Your task to perform on an android device: What's the weather going to be this weekend? Image 0: 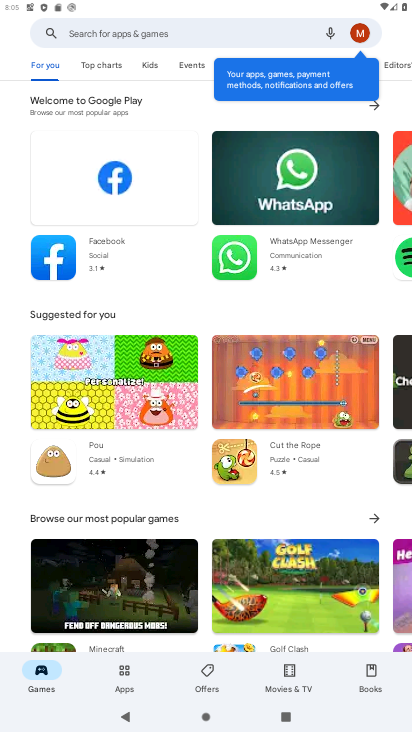
Step 0: press home button
Your task to perform on an android device: What's the weather going to be this weekend? Image 1: 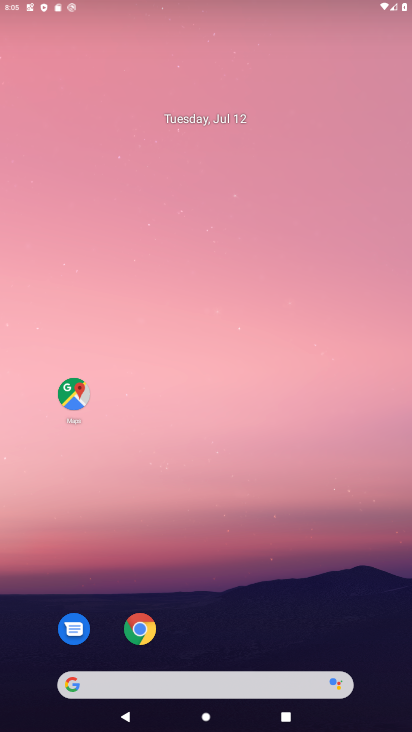
Step 1: drag from (216, 579) to (222, 165)
Your task to perform on an android device: What's the weather going to be this weekend? Image 2: 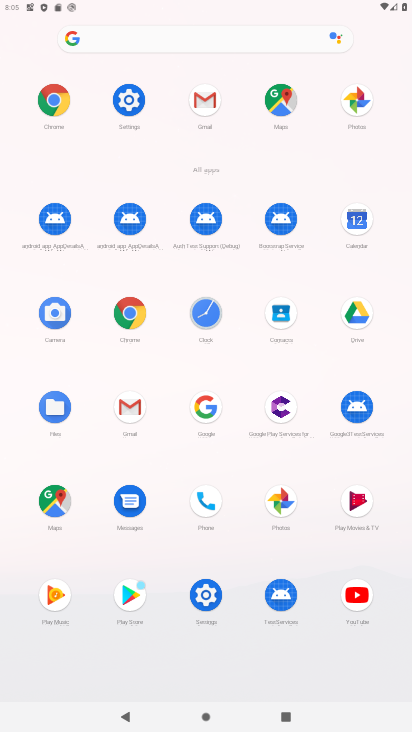
Step 2: click (50, 100)
Your task to perform on an android device: What's the weather going to be this weekend? Image 3: 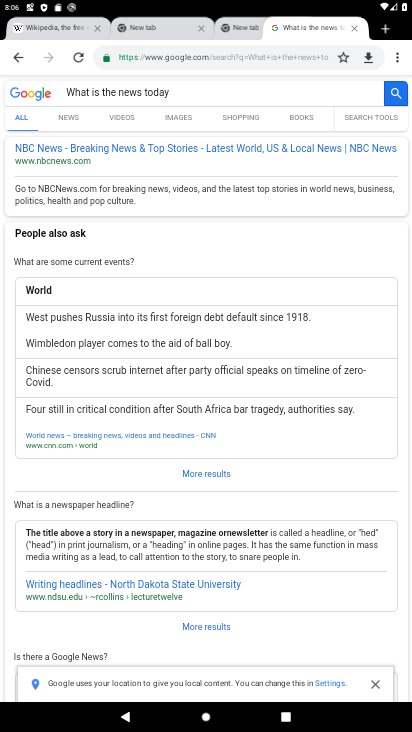
Step 3: click (404, 58)
Your task to perform on an android device: What's the weather going to be this weekend? Image 4: 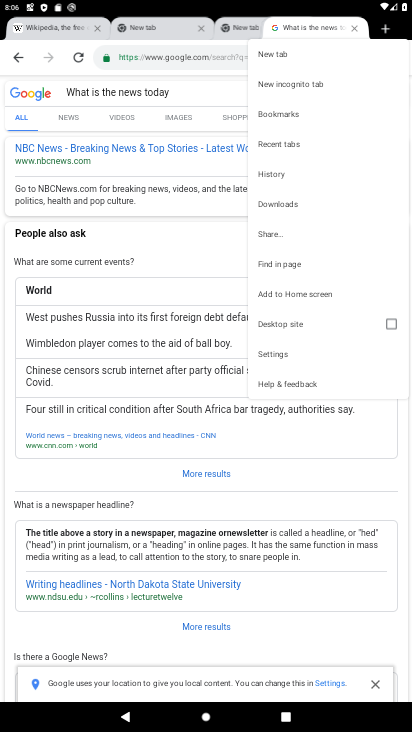
Step 4: click (275, 57)
Your task to perform on an android device: What's the weather going to be this weekend? Image 5: 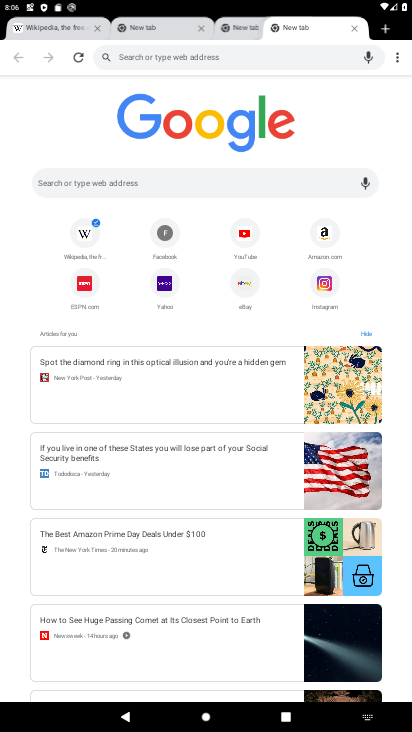
Step 5: click (221, 178)
Your task to perform on an android device: What's the weather going to be this weekend? Image 6: 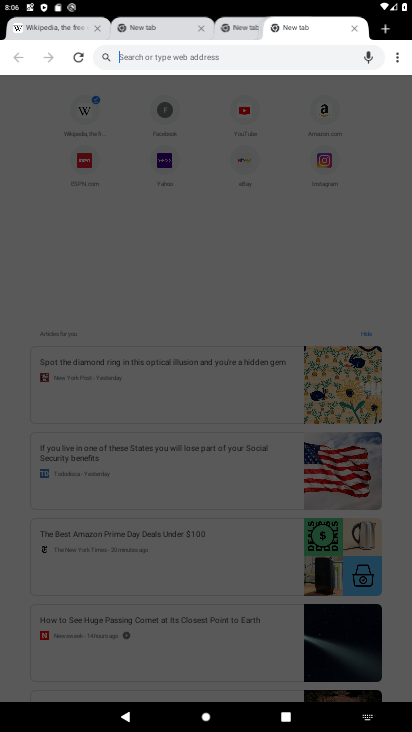
Step 6: type "What's the weather going to be this weekend "
Your task to perform on an android device: What's the weather going to be this weekend? Image 7: 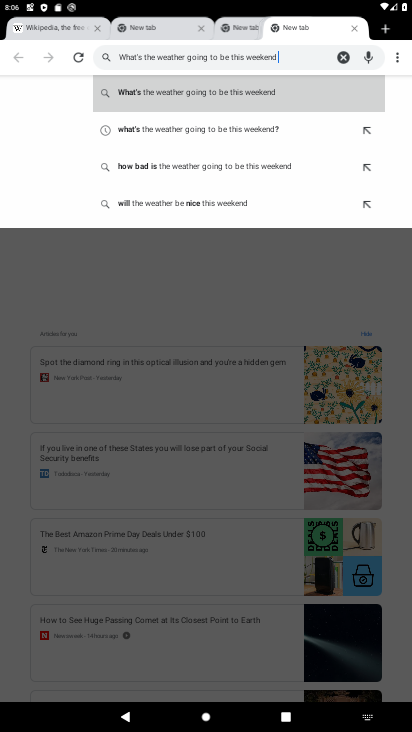
Step 7: click (288, 94)
Your task to perform on an android device: What's the weather going to be this weekend? Image 8: 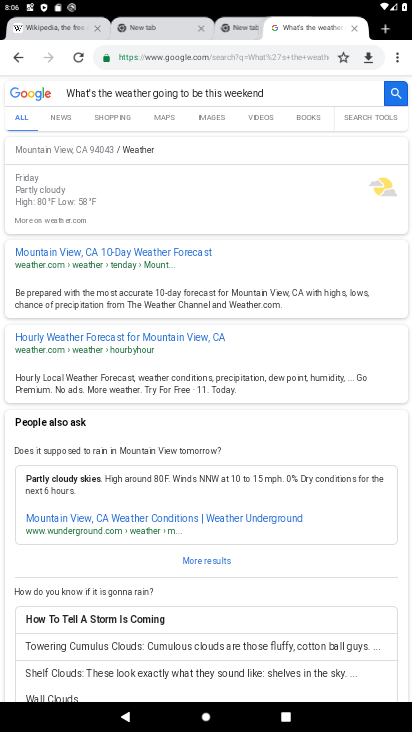
Step 8: task complete